Your task to perform on an android device: open app "VLC for Android" Image 0: 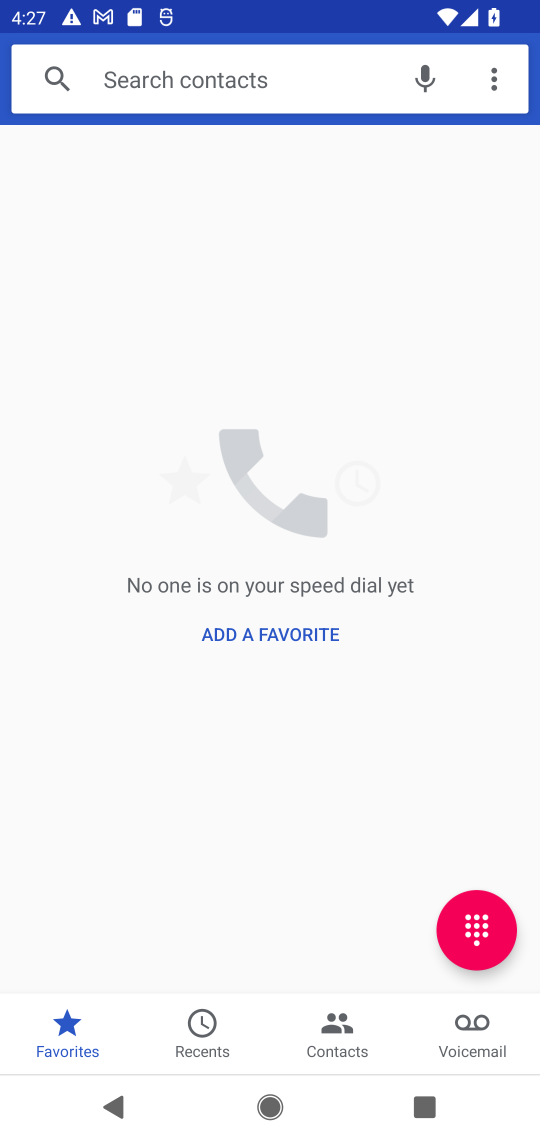
Step 0: press home button
Your task to perform on an android device: open app "VLC for Android" Image 1: 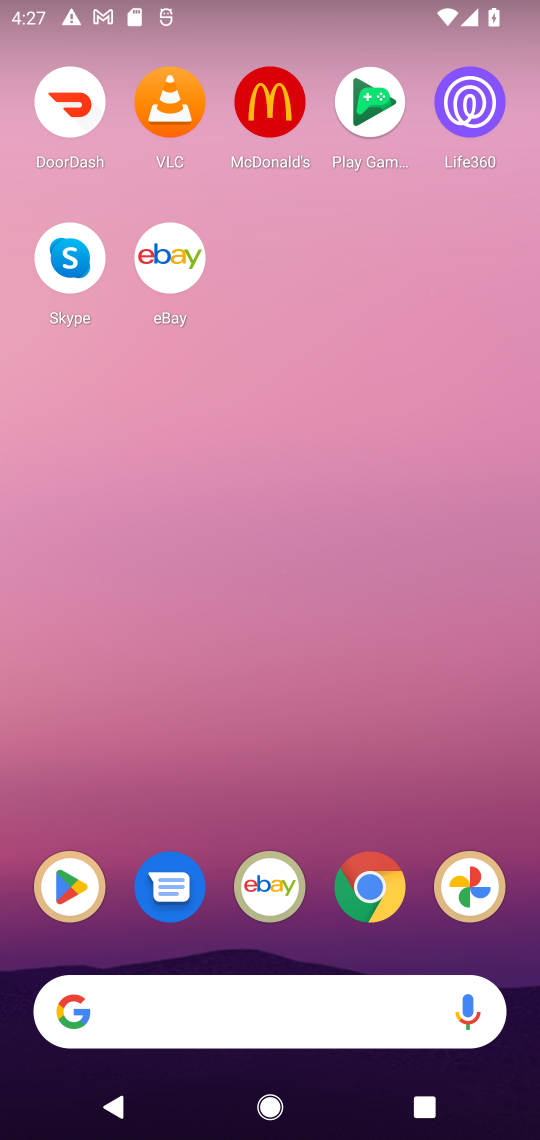
Step 1: click (176, 123)
Your task to perform on an android device: open app "VLC for Android" Image 2: 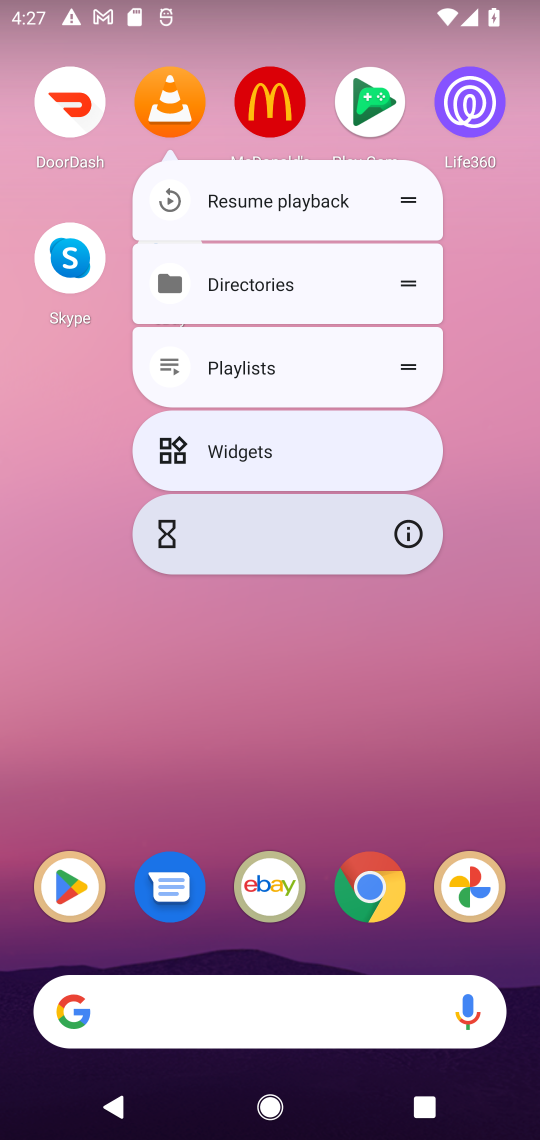
Step 2: click (174, 122)
Your task to perform on an android device: open app "VLC for Android" Image 3: 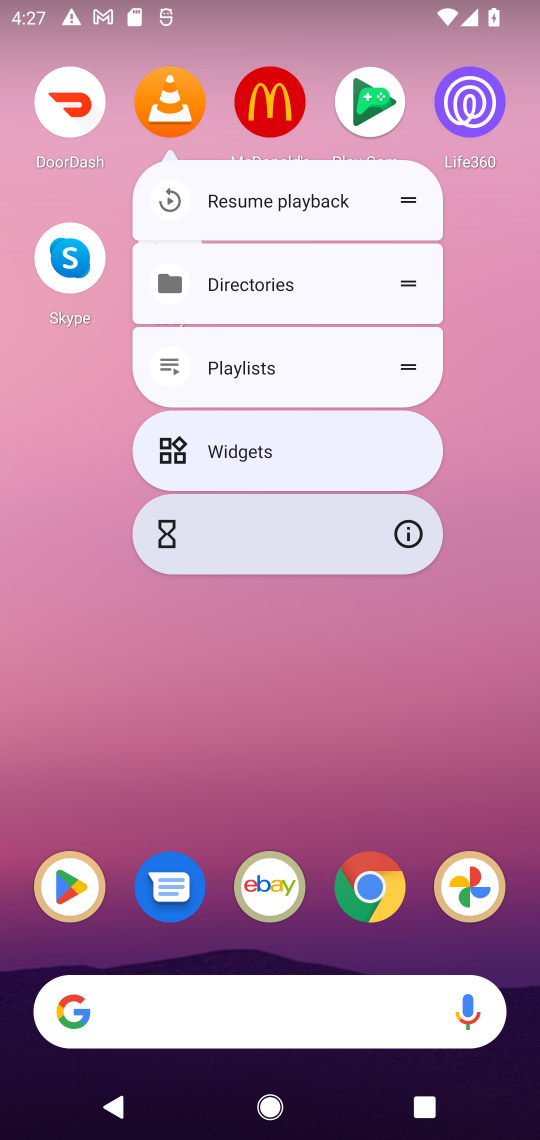
Step 3: click (173, 123)
Your task to perform on an android device: open app "VLC for Android" Image 4: 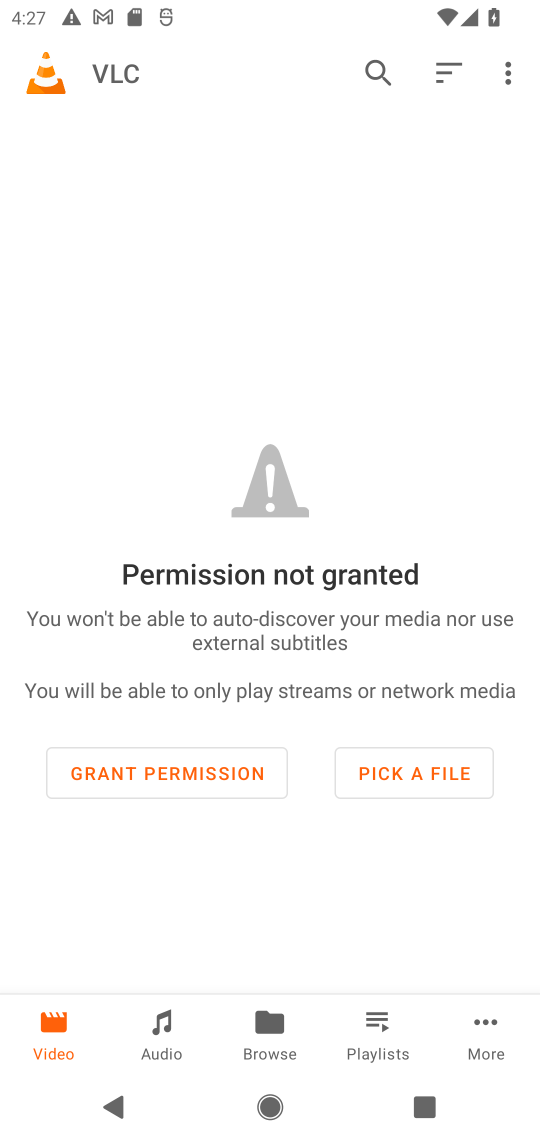
Step 4: task complete